Your task to perform on an android device: add a label to a message in the gmail app Image 0: 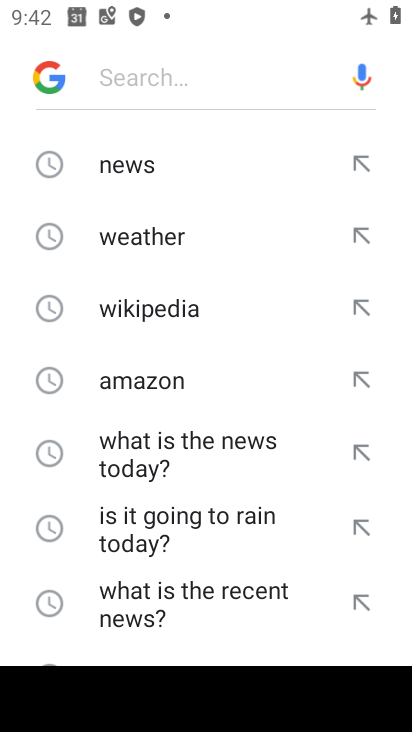
Step 0: press home button
Your task to perform on an android device: add a label to a message in the gmail app Image 1: 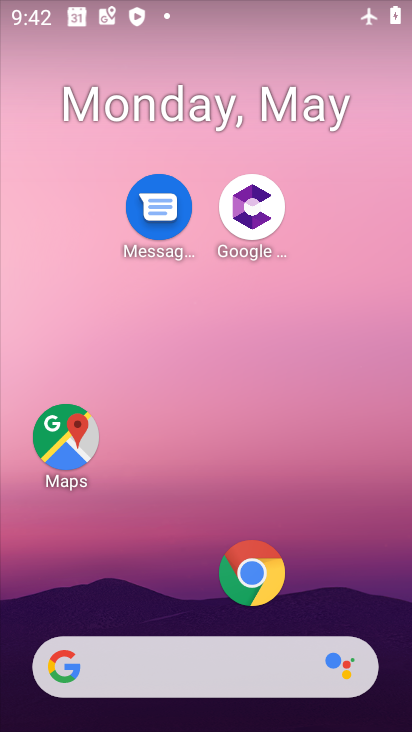
Step 1: drag from (165, 607) to (204, 249)
Your task to perform on an android device: add a label to a message in the gmail app Image 2: 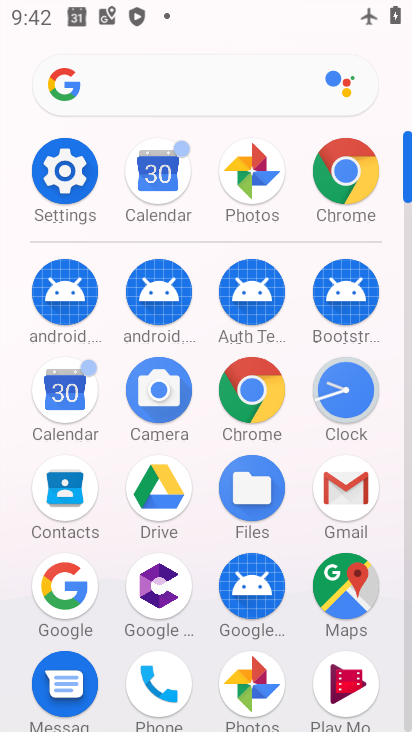
Step 2: click (359, 499)
Your task to perform on an android device: add a label to a message in the gmail app Image 3: 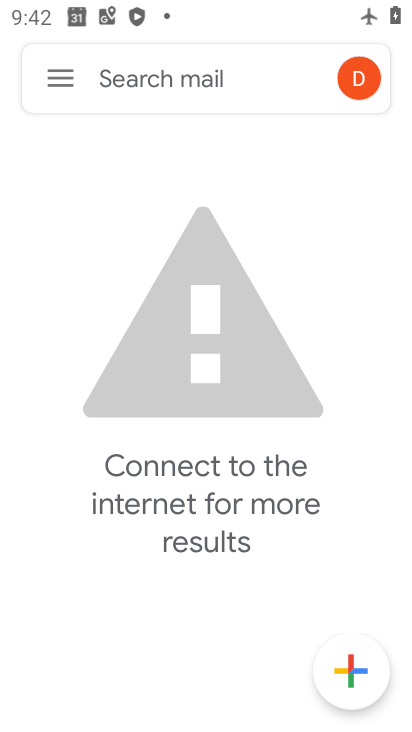
Step 3: click (62, 89)
Your task to perform on an android device: add a label to a message in the gmail app Image 4: 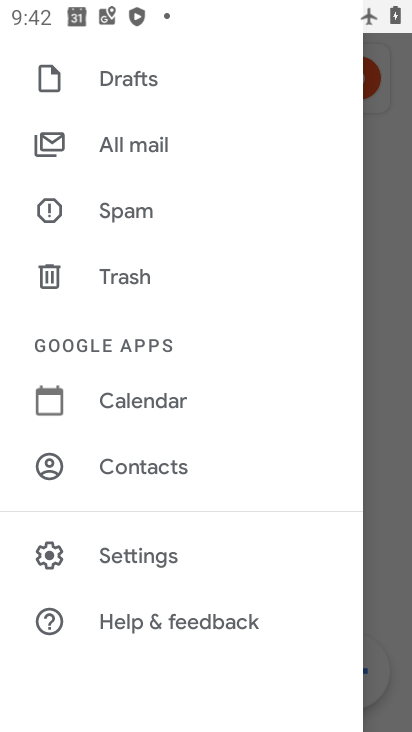
Step 4: click (155, 148)
Your task to perform on an android device: add a label to a message in the gmail app Image 5: 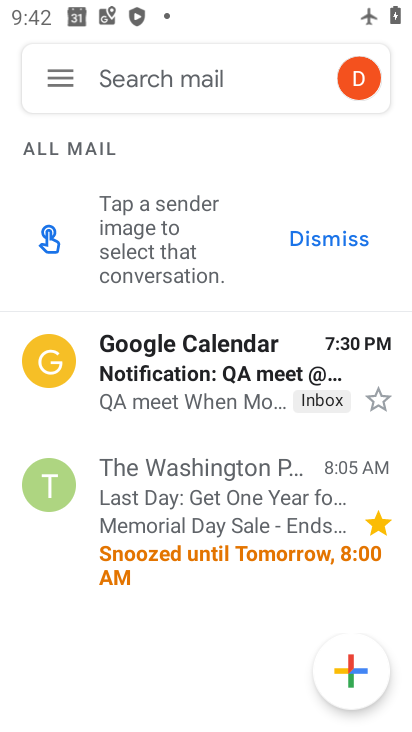
Step 5: click (166, 506)
Your task to perform on an android device: add a label to a message in the gmail app Image 6: 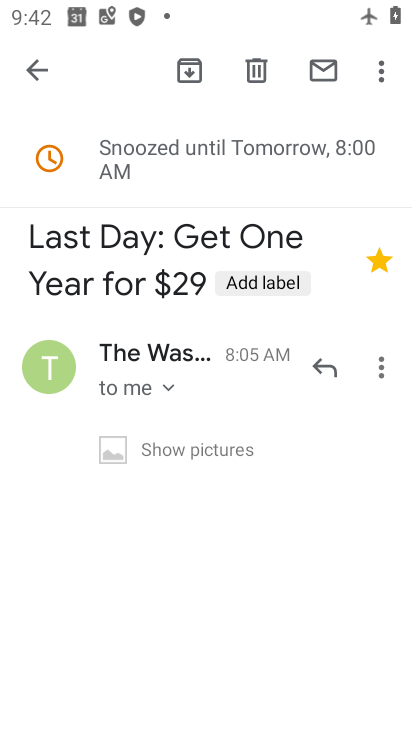
Step 6: click (385, 81)
Your task to perform on an android device: add a label to a message in the gmail app Image 7: 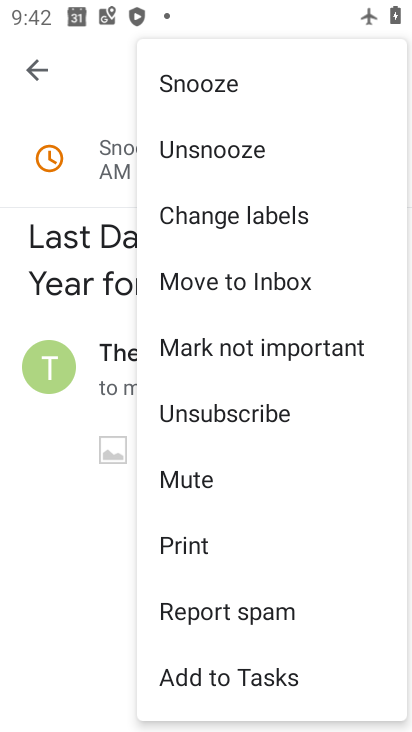
Step 7: click (280, 221)
Your task to perform on an android device: add a label to a message in the gmail app Image 8: 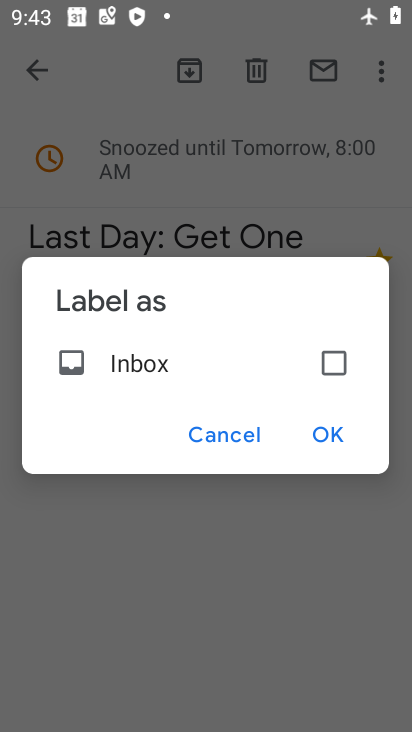
Step 8: click (324, 376)
Your task to perform on an android device: add a label to a message in the gmail app Image 9: 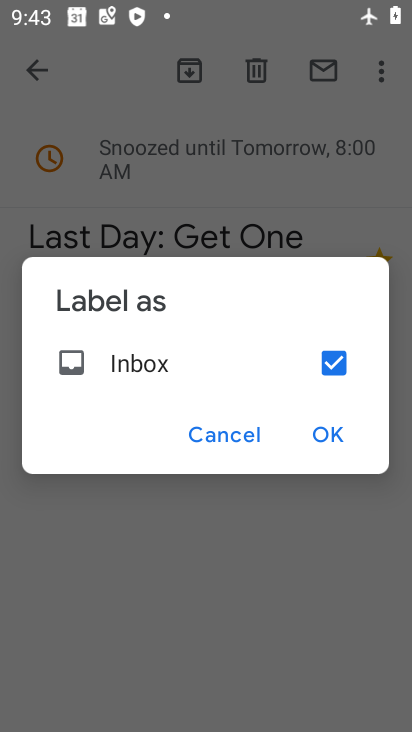
Step 9: click (326, 456)
Your task to perform on an android device: add a label to a message in the gmail app Image 10: 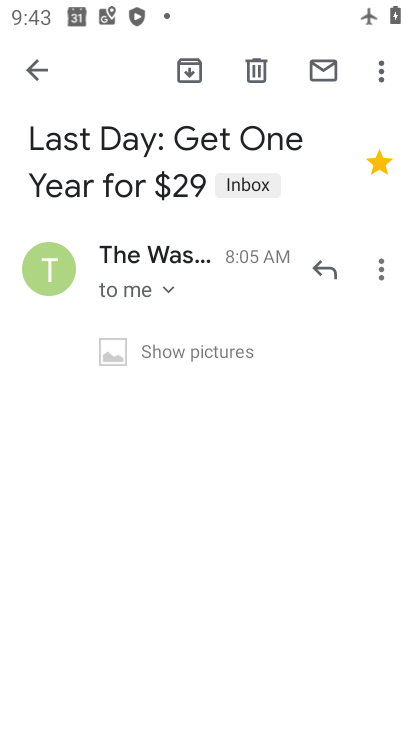
Step 10: task complete